Your task to perform on an android device: Go to battery settings Image 0: 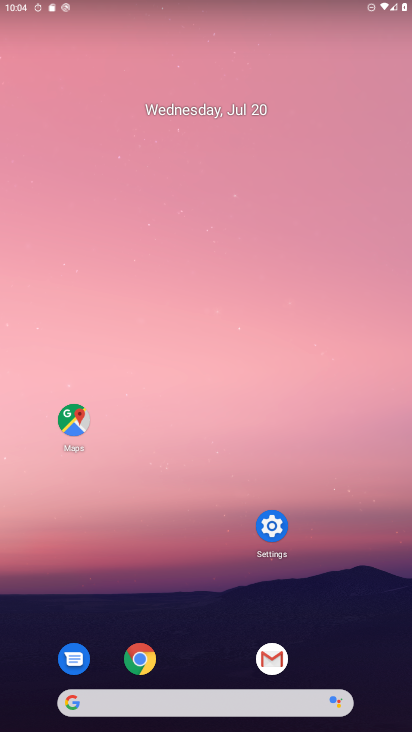
Step 0: click (279, 523)
Your task to perform on an android device: Go to battery settings Image 1: 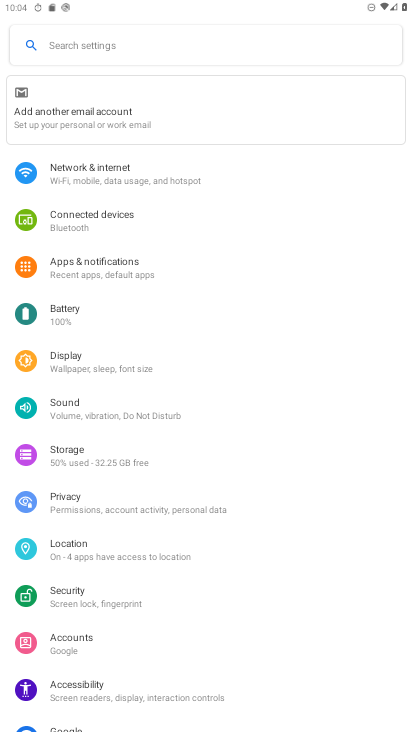
Step 1: click (51, 316)
Your task to perform on an android device: Go to battery settings Image 2: 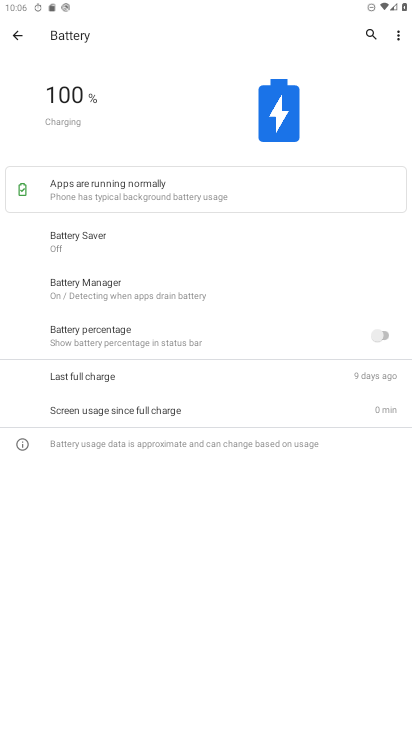
Step 2: task complete